Your task to perform on an android device: open sync settings in chrome Image 0: 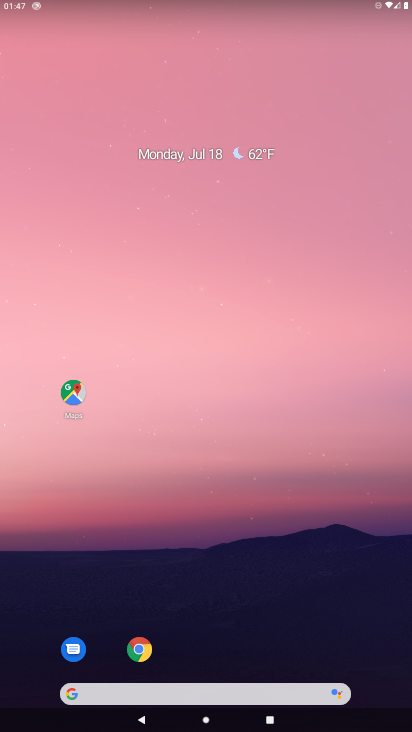
Step 0: drag from (117, 493) to (357, 541)
Your task to perform on an android device: open sync settings in chrome Image 1: 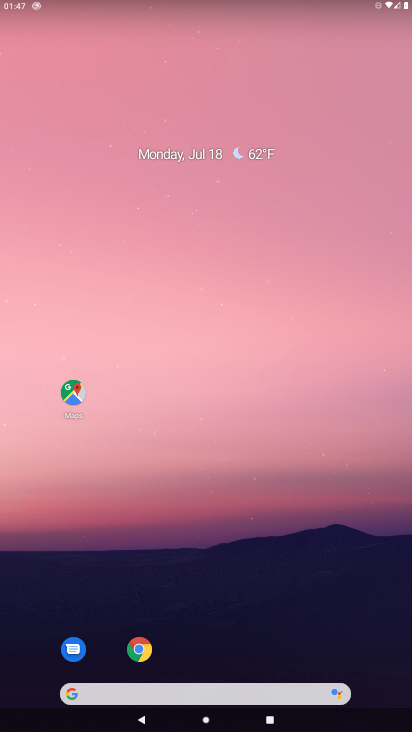
Step 1: task complete